Your task to perform on an android device: toggle pop-ups in chrome Image 0: 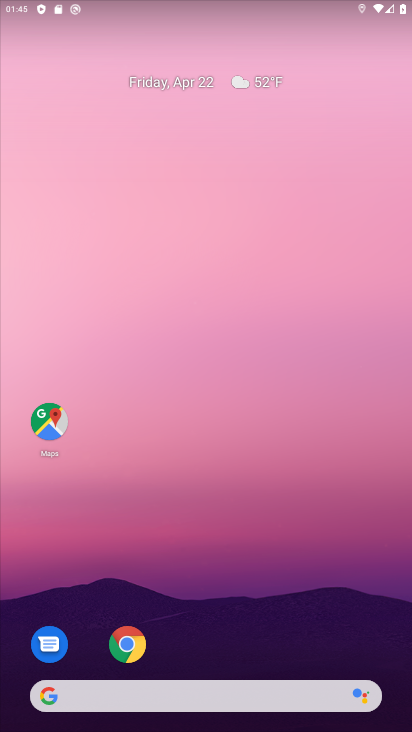
Step 0: click (135, 636)
Your task to perform on an android device: toggle pop-ups in chrome Image 1: 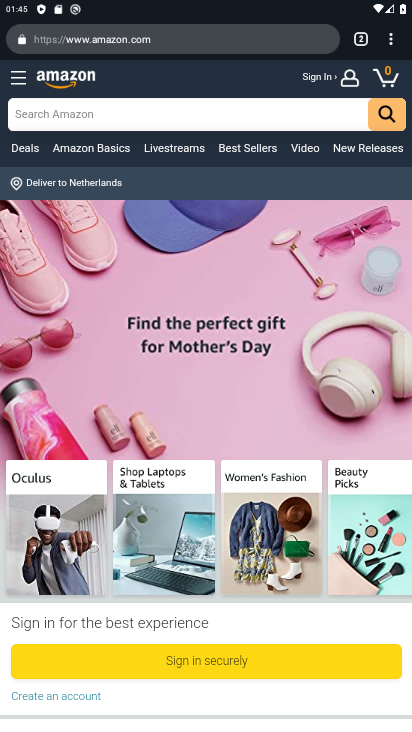
Step 1: click (393, 60)
Your task to perform on an android device: toggle pop-ups in chrome Image 2: 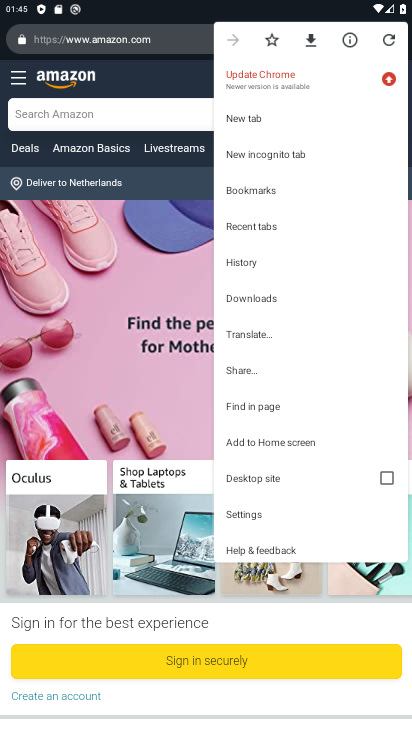
Step 2: click (293, 510)
Your task to perform on an android device: toggle pop-ups in chrome Image 3: 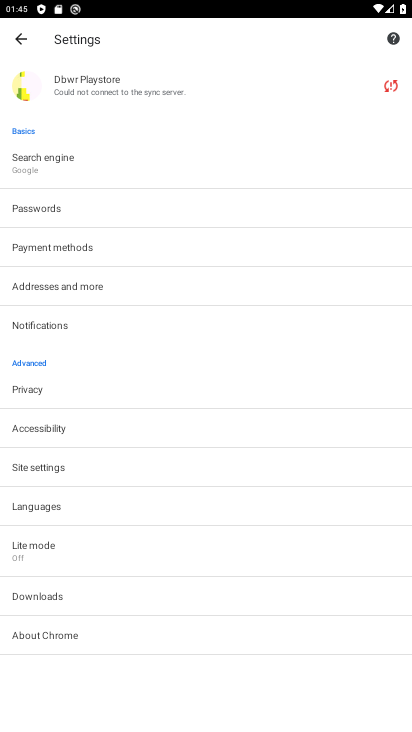
Step 3: click (145, 470)
Your task to perform on an android device: toggle pop-ups in chrome Image 4: 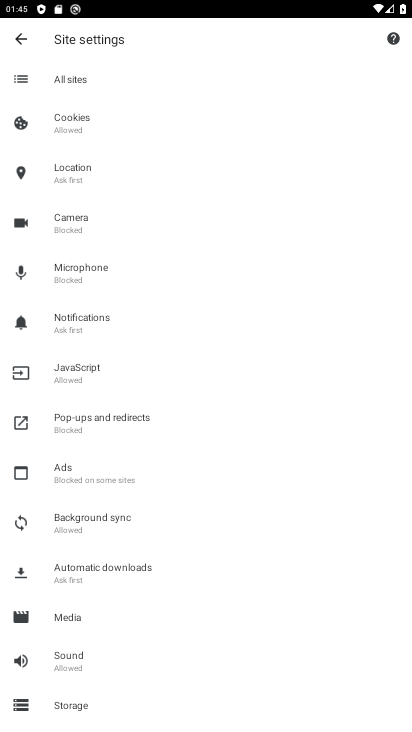
Step 4: click (158, 424)
Your task to perform on an android device: toggle pop-ups in chrome Image 5: 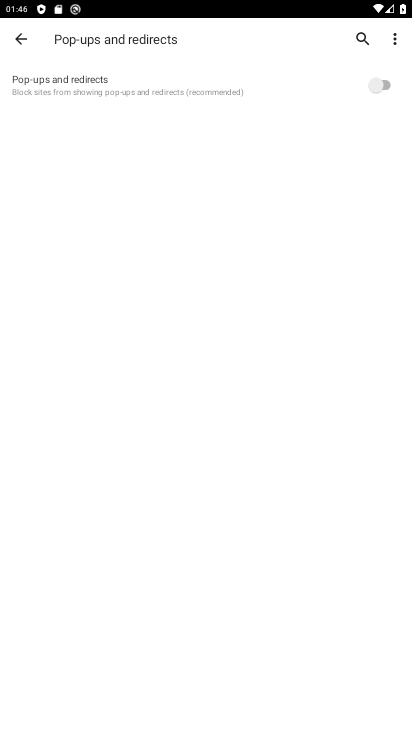
Step 5: click (386, 89)
Your task to perform on an android device: toggle pop-ups in chrome Image 6: 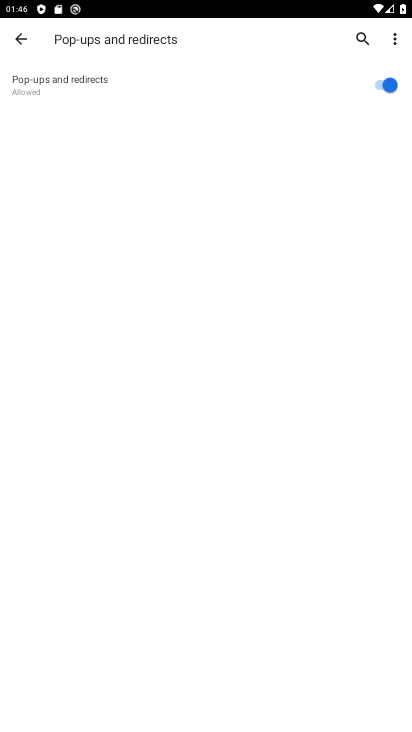
Step 6: task complete